Your task to perform on an android device: Do I have any events this weekend? Image 0: 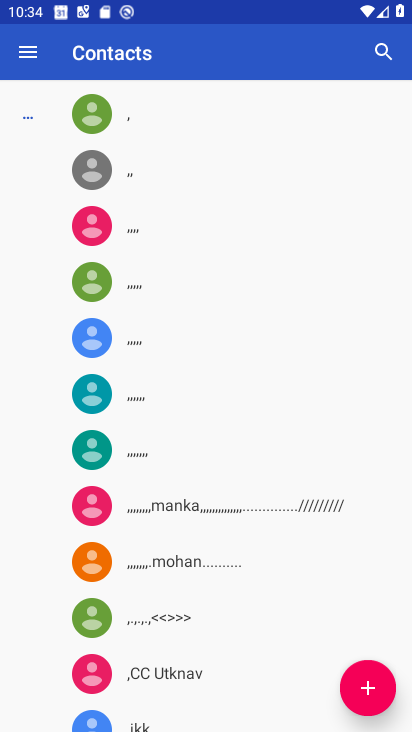
Step 0: press home button
Your task to perform on an android device: Do I have any events this weekend? Image 1: 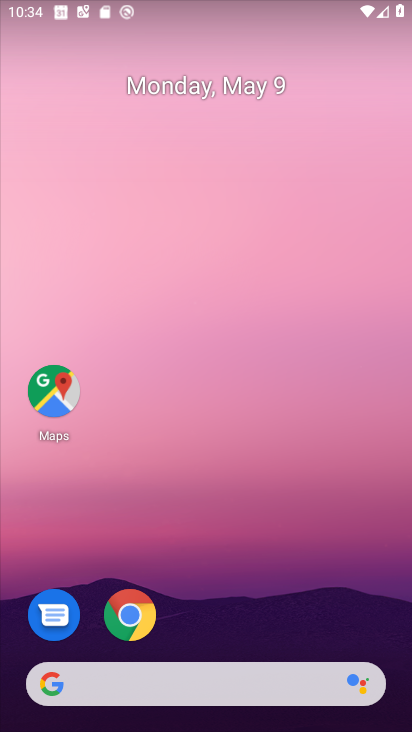
Step 1: drag from (304, 701) to (376, 167)
Your task to perform on an android device: Do I have any events this weekend? Image 2: 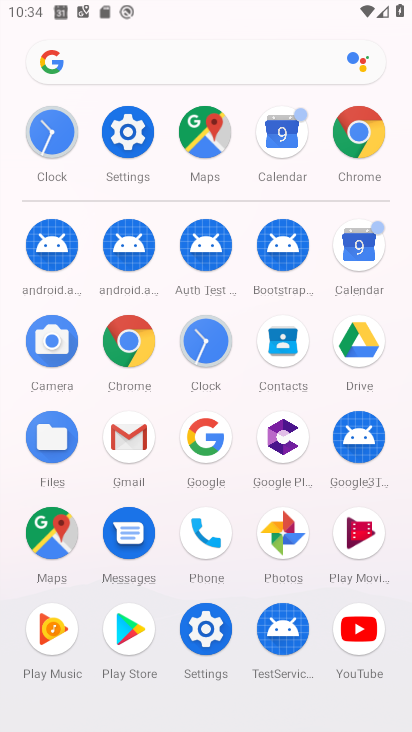
Step 2: click (354, 252)
Your task to perform on an android device: Do I have any events this weekend? Image 3: 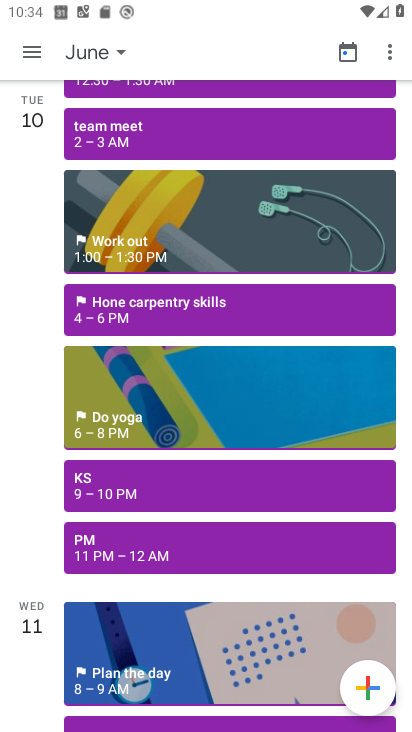
Step 3: drag from (48, 221) to (49, 365)
Your task to perform on an android device: Do I have any events this weekend? Image 4: 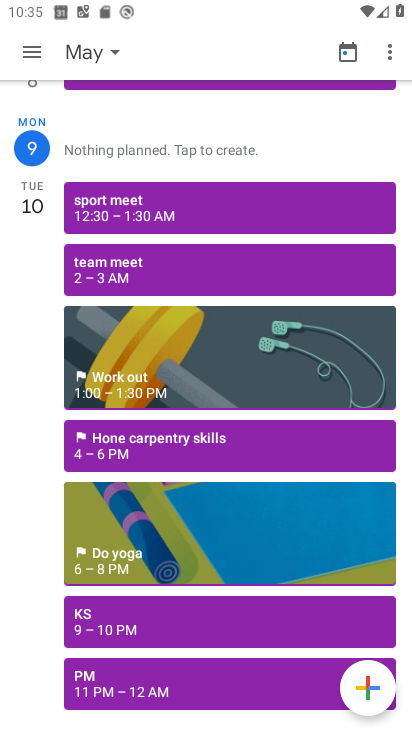
Step 4: click (30, 34)
Your task to perform on an android device: Do I have any events this weekend? Image 5: 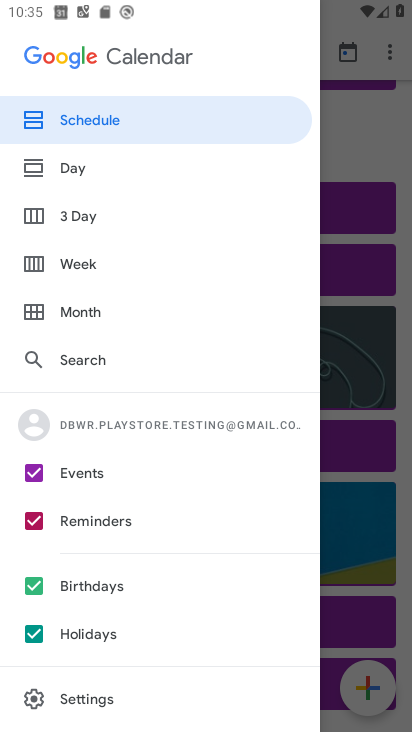
Step 5: click (101, 258)
Your task to perform on an android device: Do I have any events this weekend? Image 6: 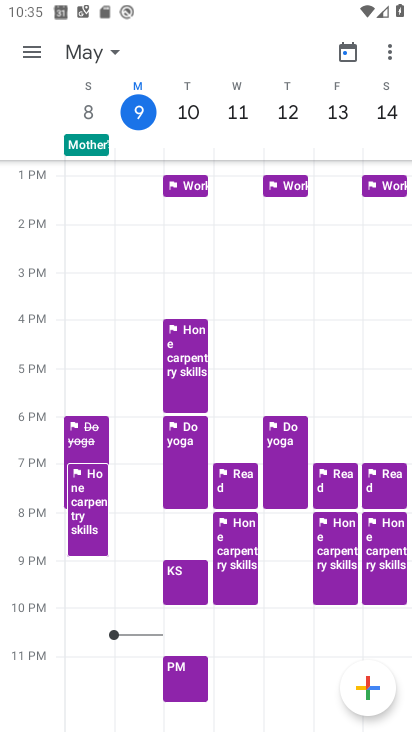
Step 6: task complete